Your task to perform on an android device: toggle wifi Image 0: 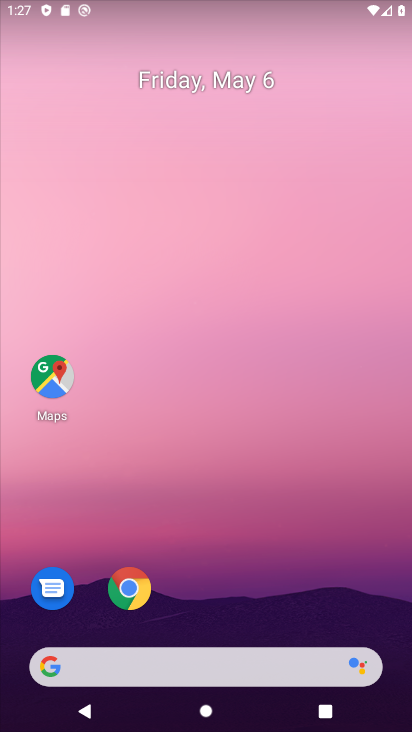
Step 0: drag from (384, 591) to (350, 90)
Your task to perform on an android device: toggle wifi Image 1: 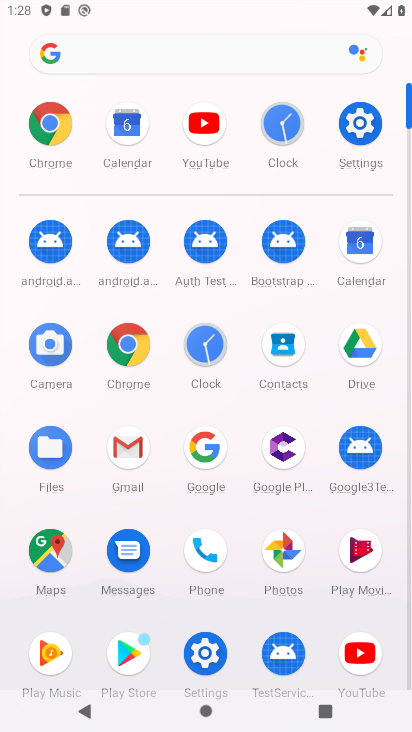
Step 1: click (213, 664)
Your task to perform on an android device: toggle wifi Image 2: 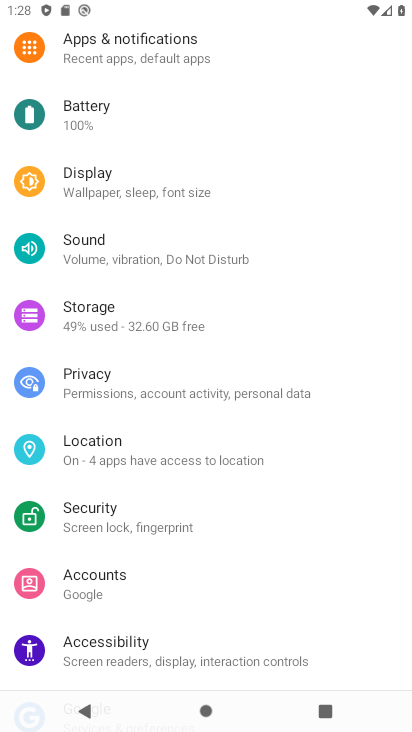
Step 2: drag from (229, 126) to (230, 463)
Your task to perform on an android device: toggle wifi Image 3: 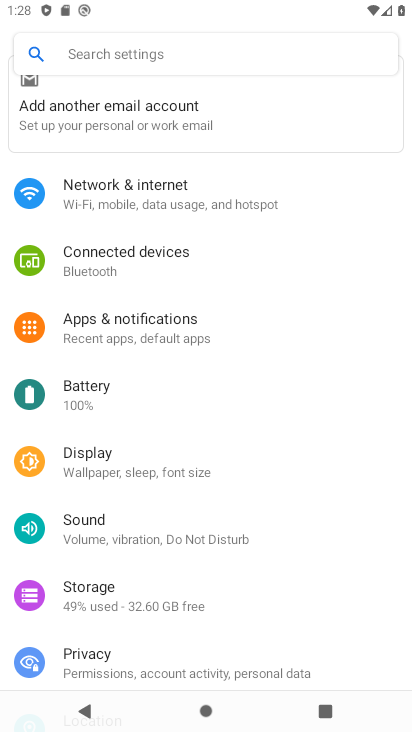
Step 3: click (197, 188)
Your task to perform on an android device: toggle wifi Image 4: 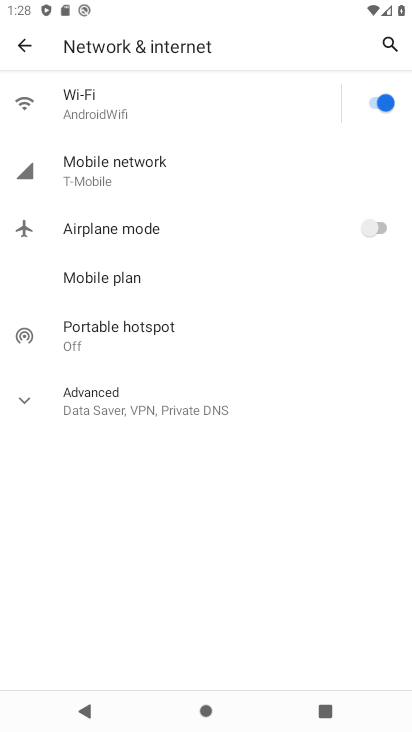
Step 4: click (383, 99)
Your task to perform on an android device: toggle wifi Image 5: 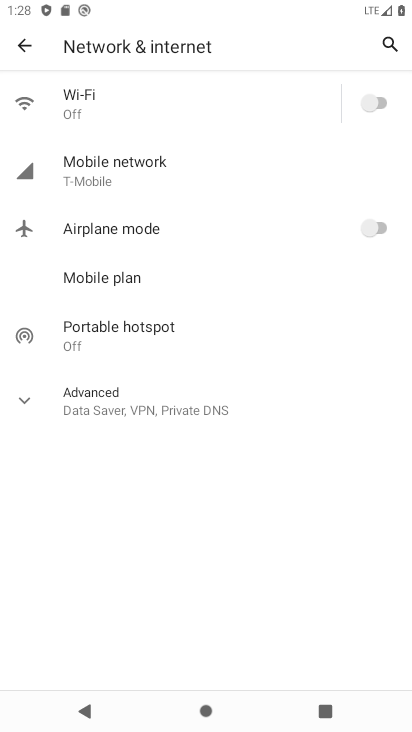
Step 5: task complete